Your task to perform on an android device: open app "Fetch Rewards" (install if not already installed) and go to login screen Image 0: 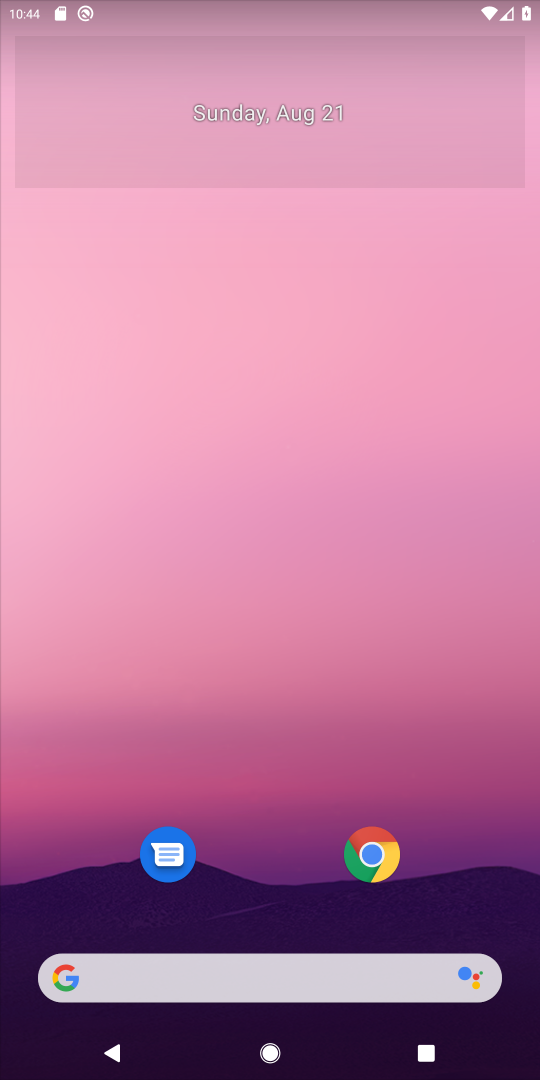
Step 0: drag from (313, 910) to (291, 138)
Your task to perform on an android device: open app "Fetch Rewards" (install if not already installed) and go to login screen Image 1: 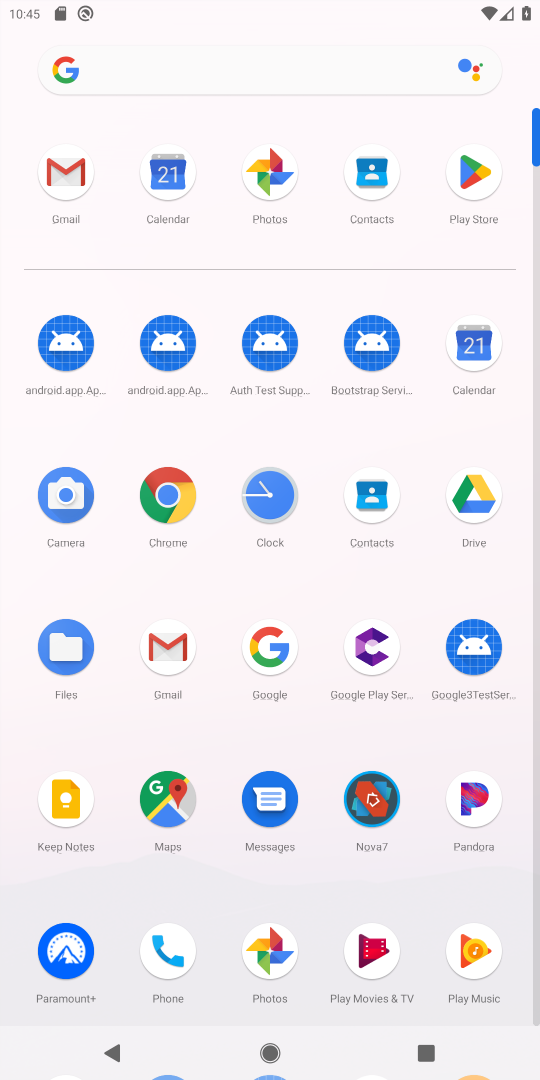
Step 1: click (496, 189)
Your task to perform on an android device: open app "Fetch Rewards" (install if not already installed) and go to login screen Image 2: 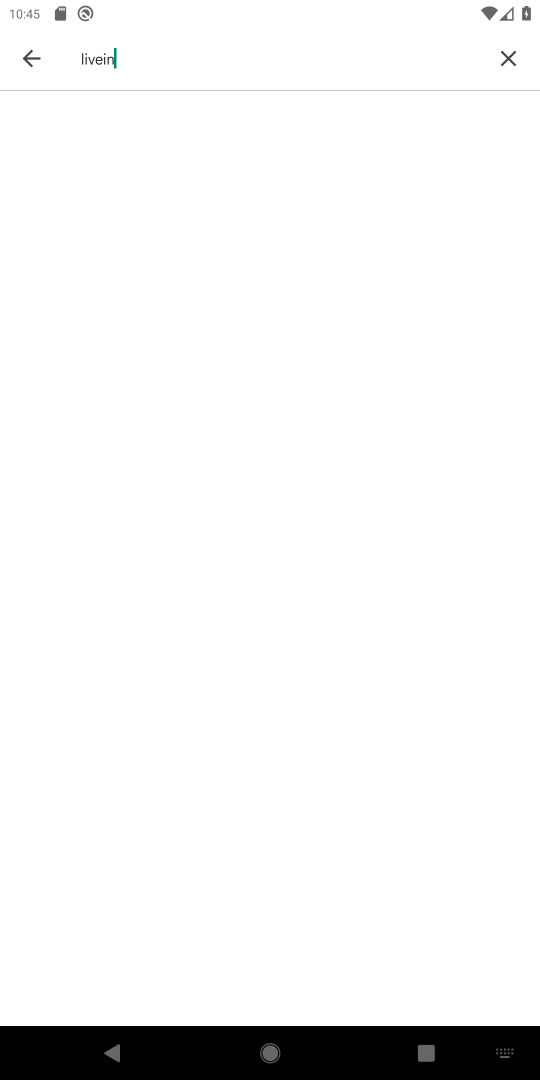
Step 2: click (505, 72)
Your task to perform on an android device: open app "Fetch Rewards" (install if not already installed) and go to login screen Image 3: 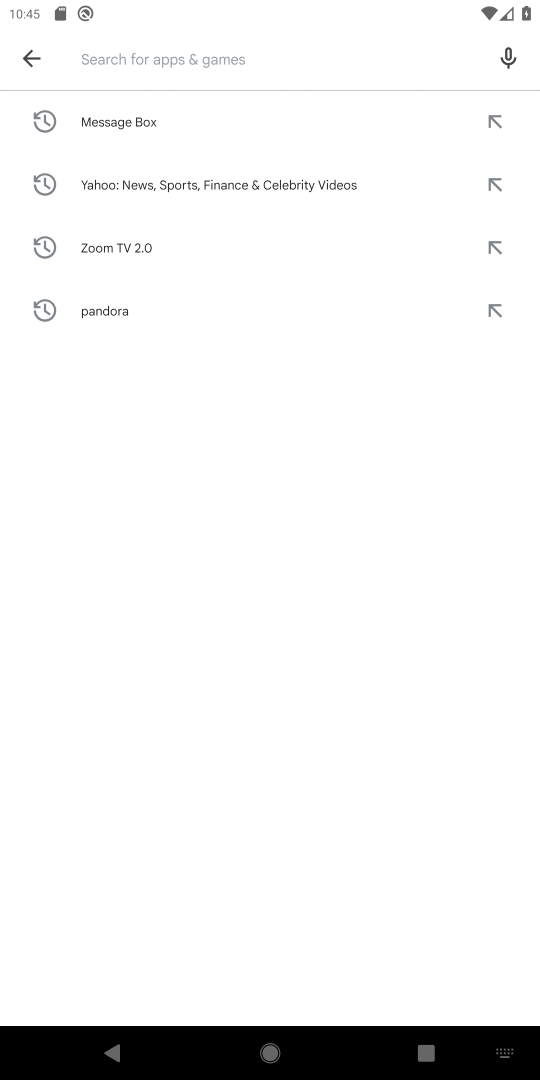
Step 3: type "fetch"
Your task to perform on an android device: open app "Fetch Rewards" (install if not already installed) and go to login screen Image 4: 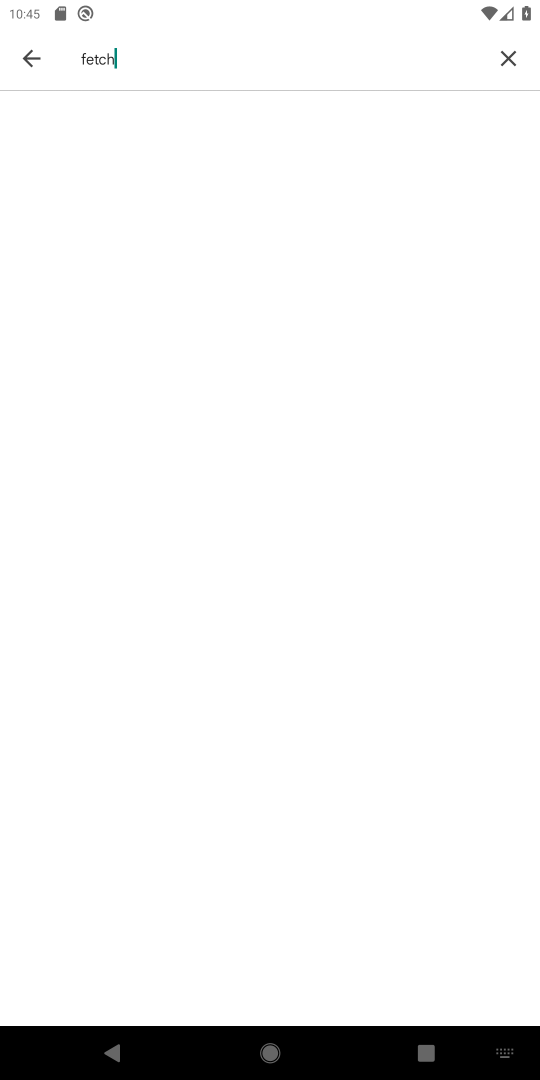
Step 4: task complete